Your task to perform on an android device: Open Wikipedia Image 0: 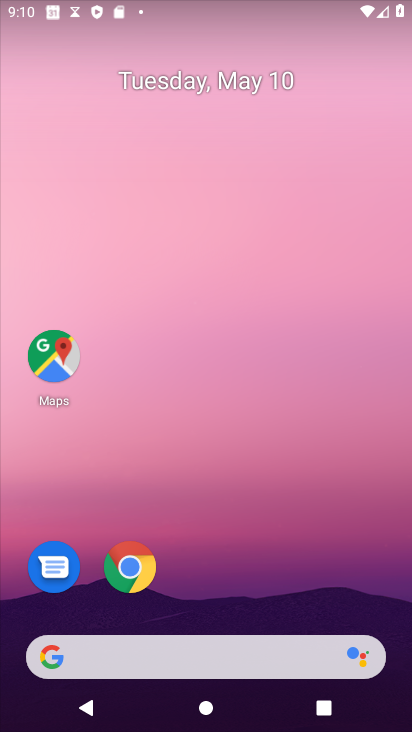
Step 0: press home button
Your task to perform on an android device: Open Wikipedia Image 1: 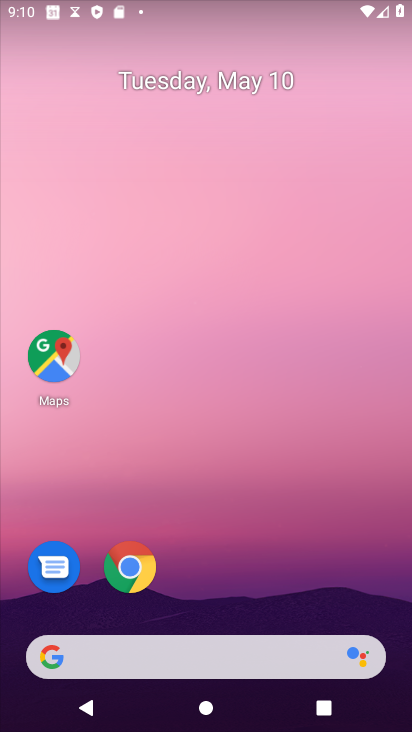
Step 1: drag from (36, 637) to (295, 203)
Your task to perform on an android device: Open Wikipedia Image 2: 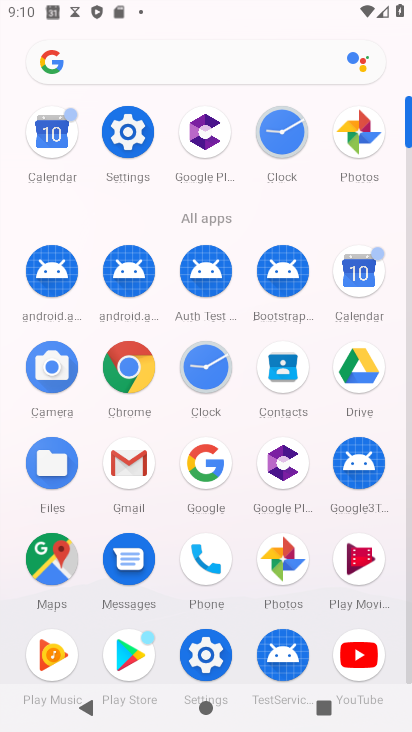
Step 2: click (119, 136)
Your task to perform on an android device: Open Wikipedia Image 3: 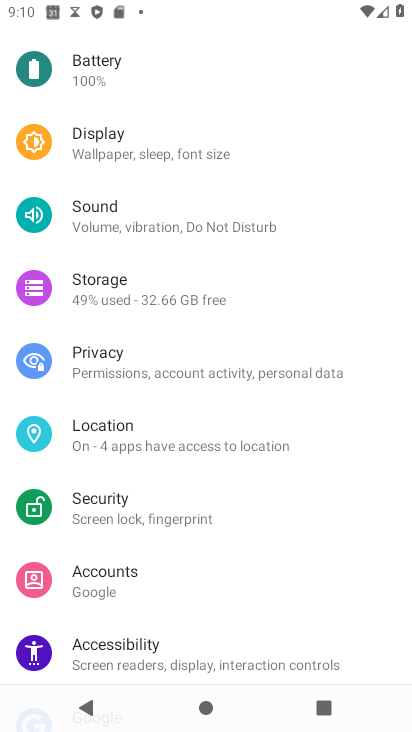
Step 3: task complete